Your task to perform on an android device: Open settings Image 0: 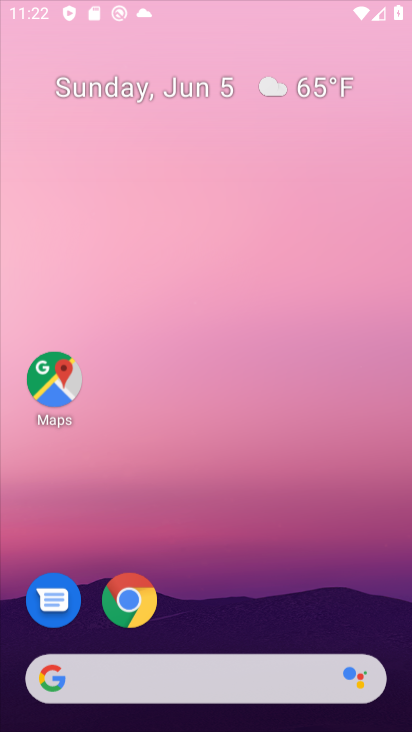
Step 0: press back button
Your task to perform on an android device: Open settings Image 1: 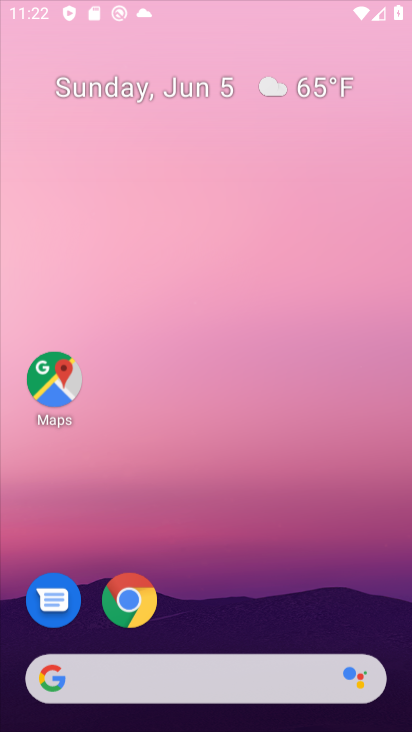
Step 1: click (167, 52)
Your task to perform on an android device: Open settings Image 2: 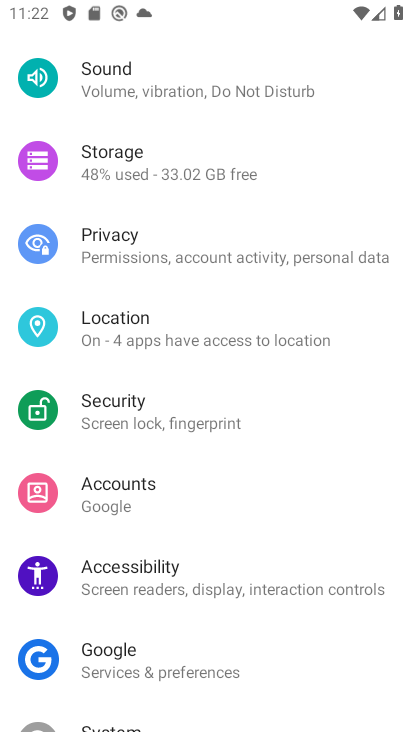
Step 2: task complete